Your task to perform on an android device: Open Reddit.com Image 0: 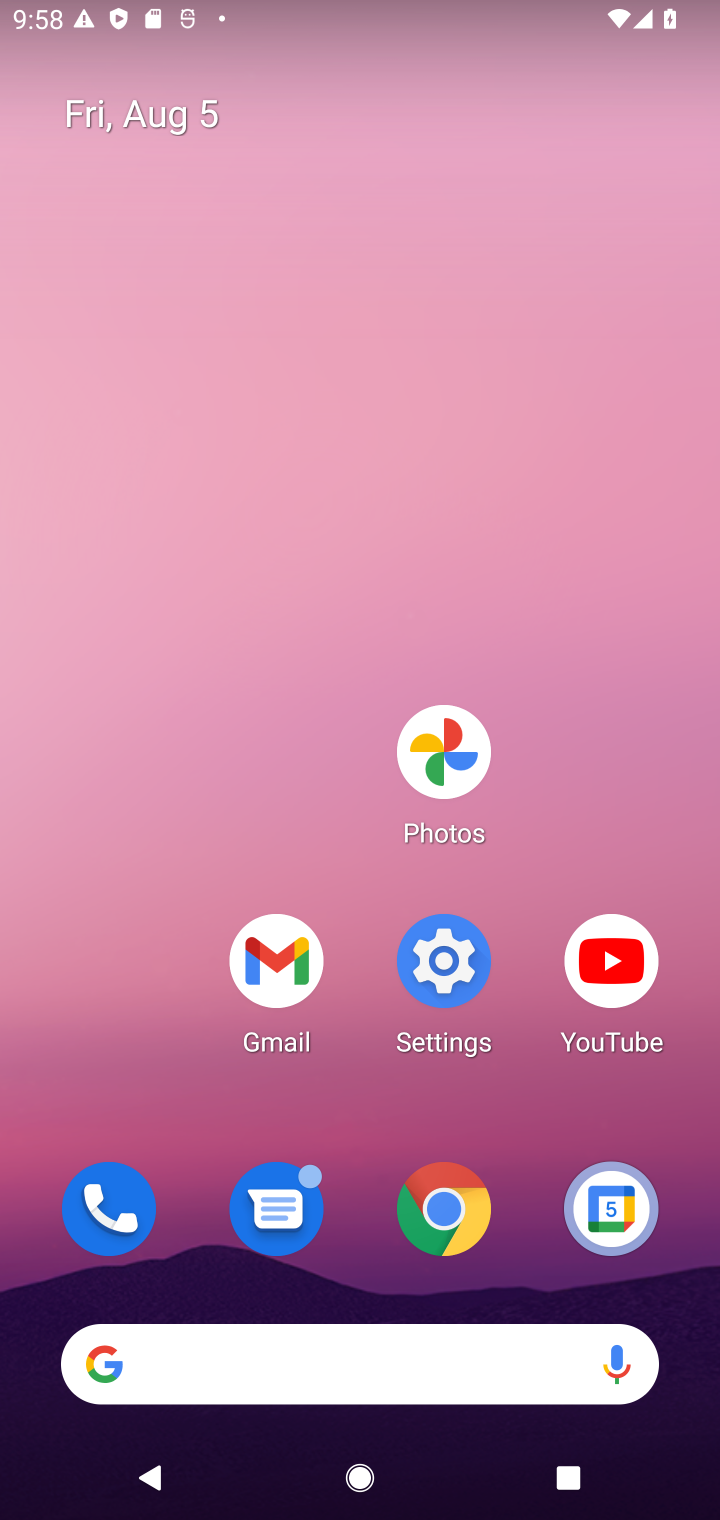
Step 0: drag from (465, 910) to (560, 328)
Your task to perform on an android device: Open Reddit.com Image 1: 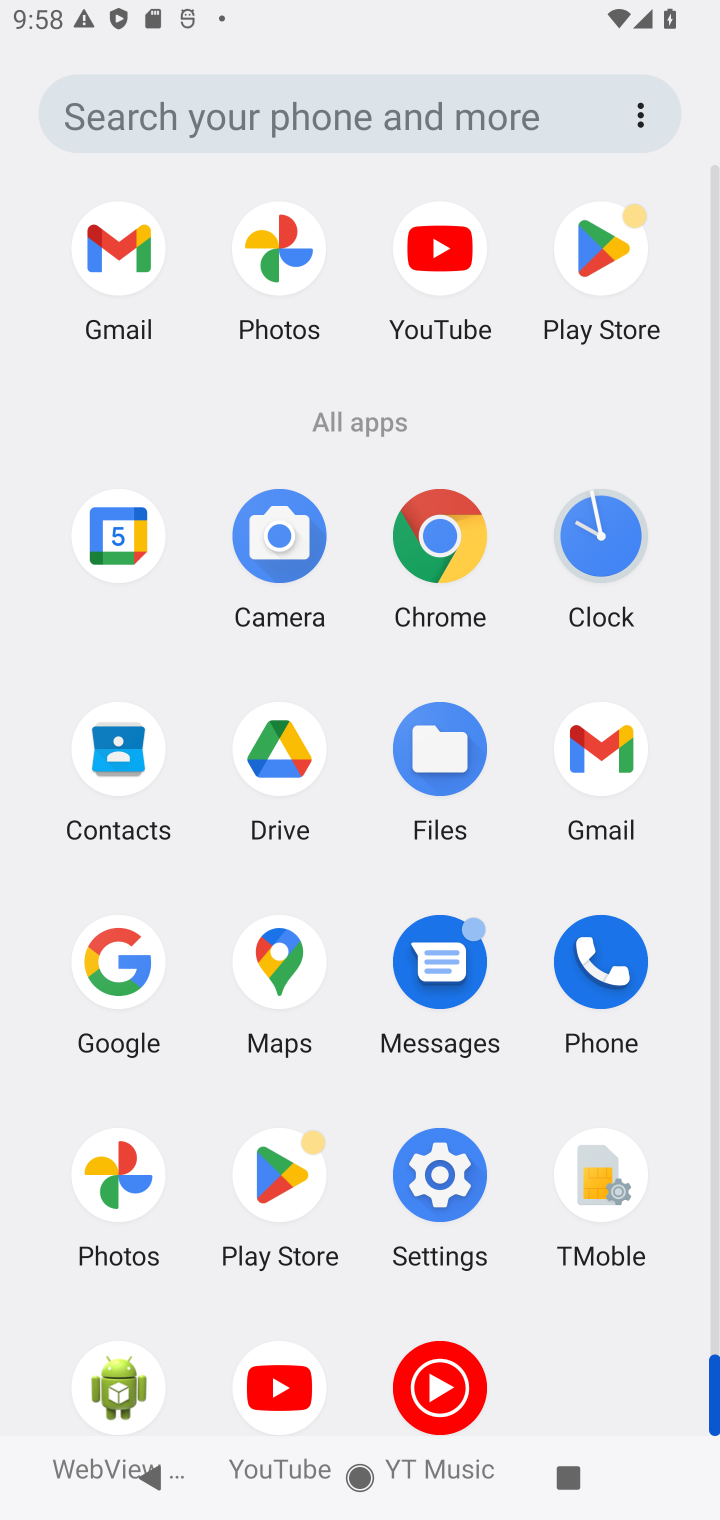
Step 1: drag from (336, 1223) to (386, 522)
Your task to perform on an android device: Open Reddit.com Image 2: 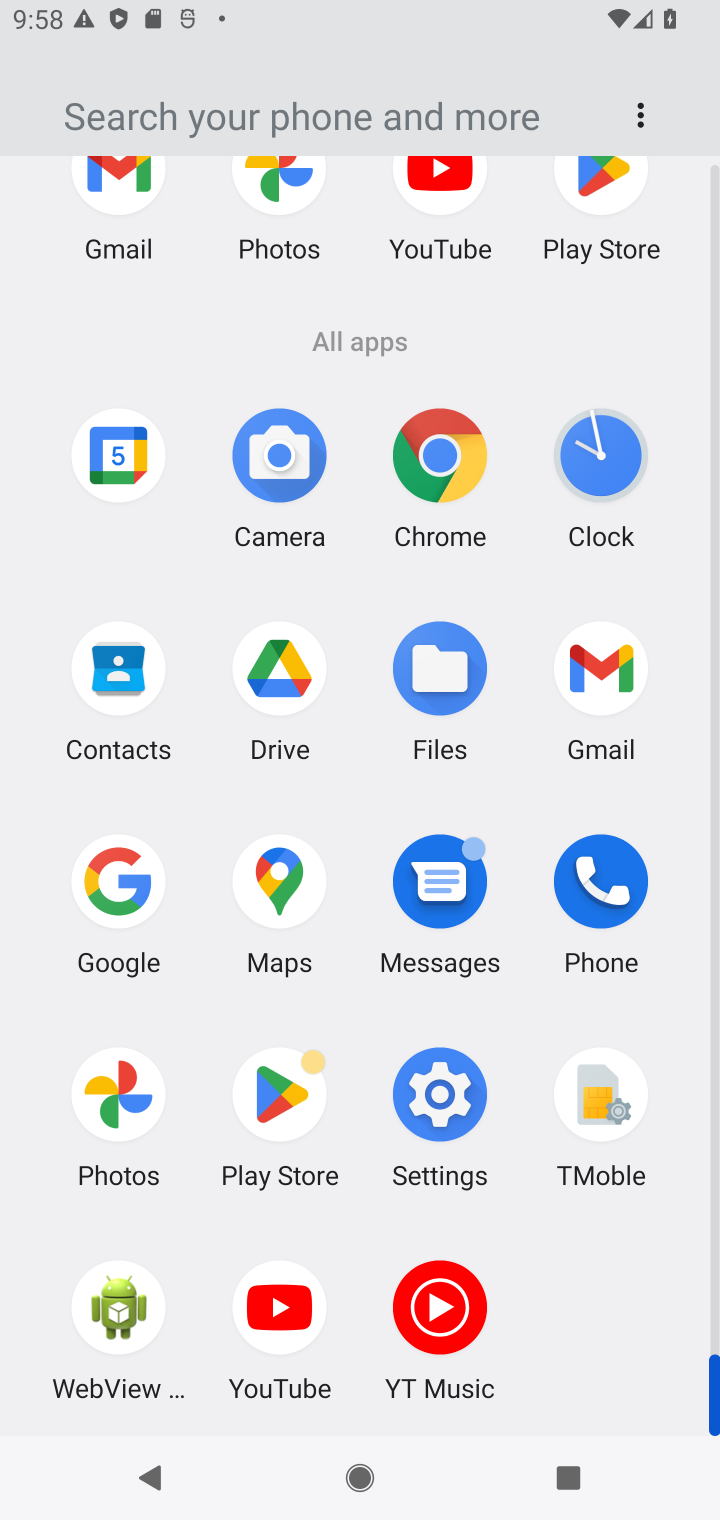
Step 2: click (443, 450)
Your task to perform on an android device: Open Reddit.com Image 3: 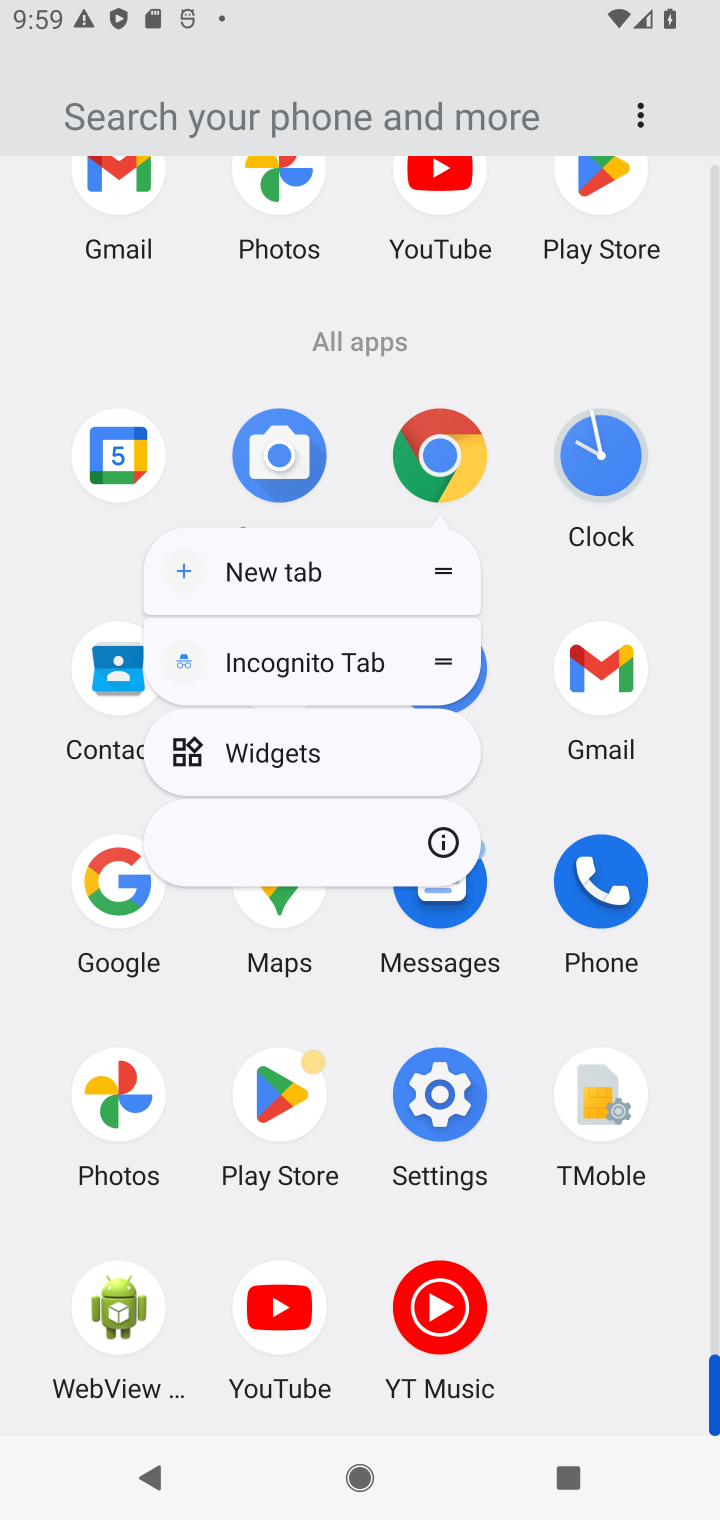
Step 3: click (426, 851)
Your task to perform on an android device: Open Reddit.com Image 4: 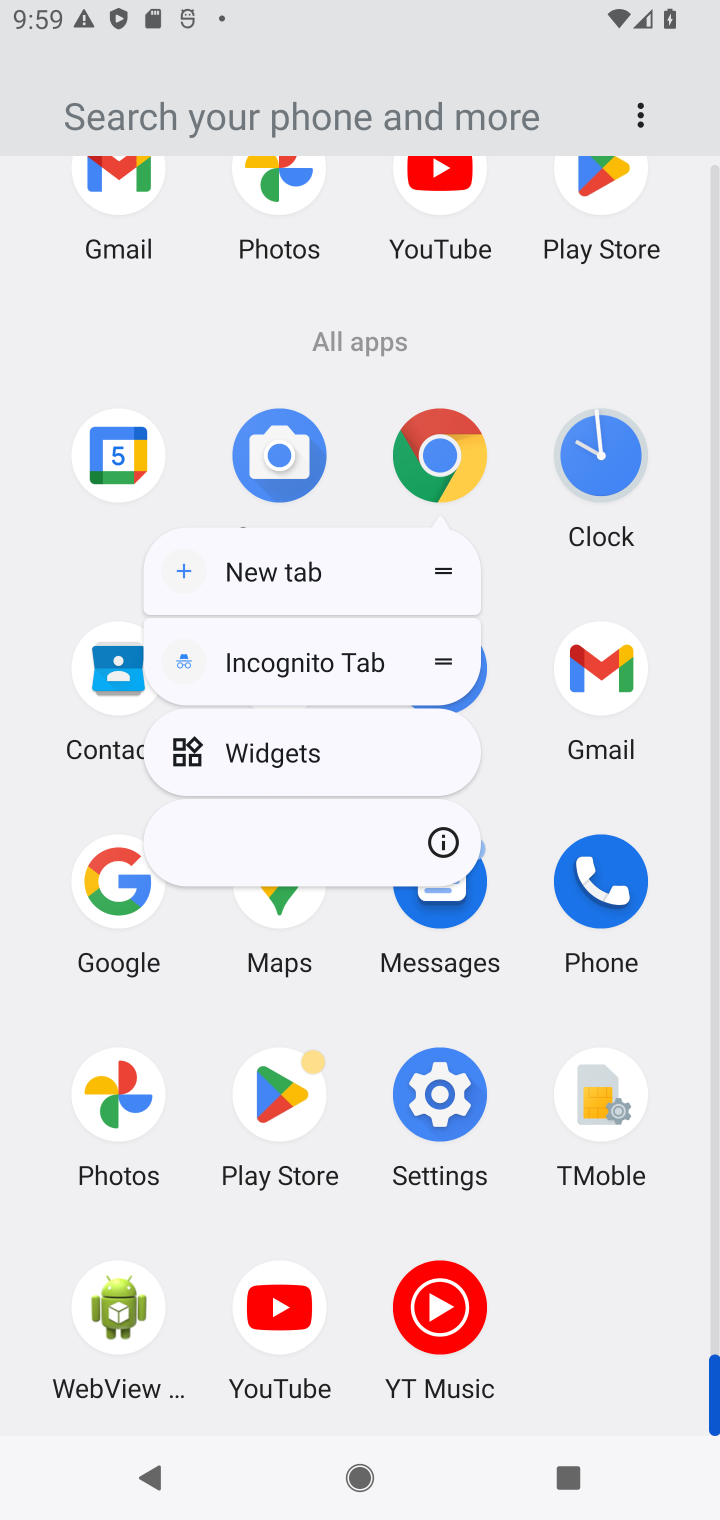
Step 4: click (426, 843)
Your task to perform on an android device: Open Reddit.com Image 5: 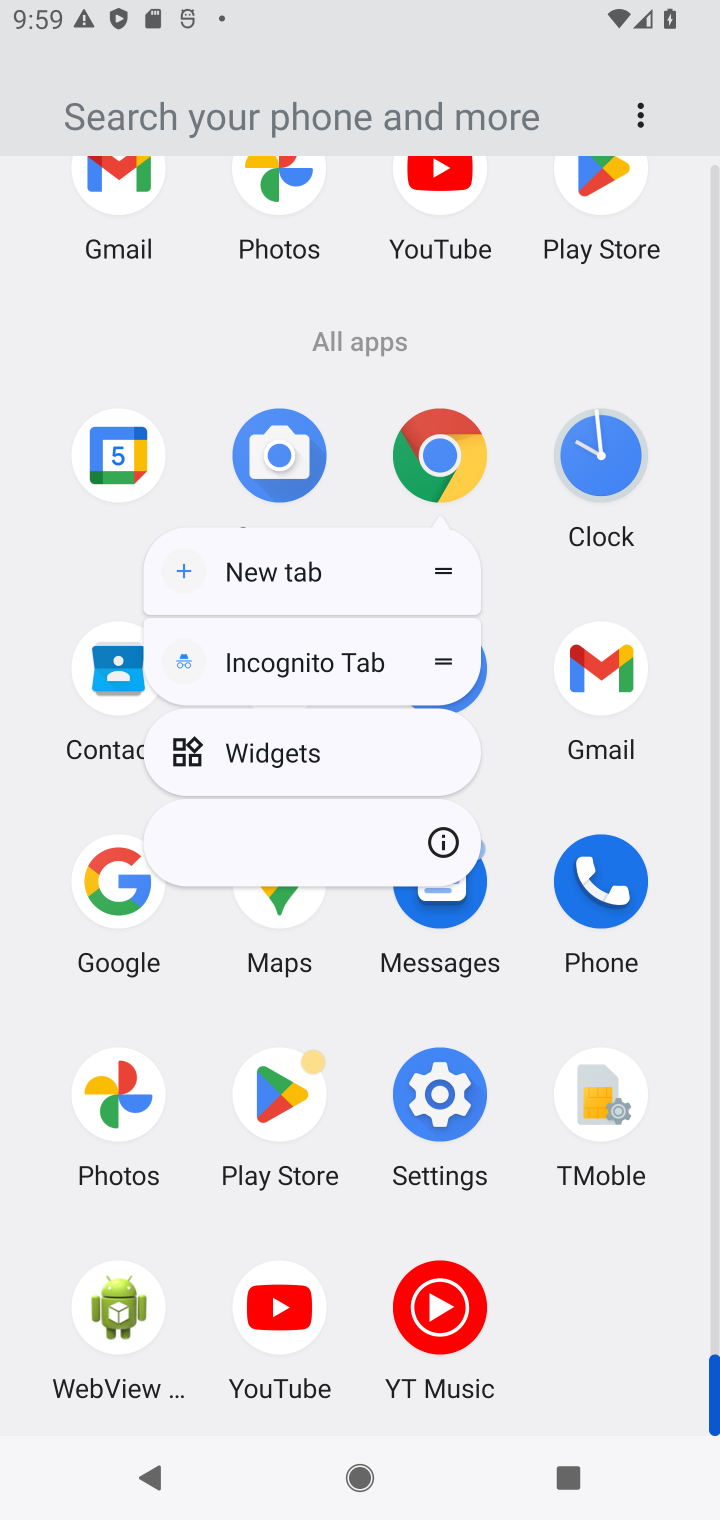
Step 5: click (431, 844)
Your task to perform on an android device: Open Reddit.com Image 6: 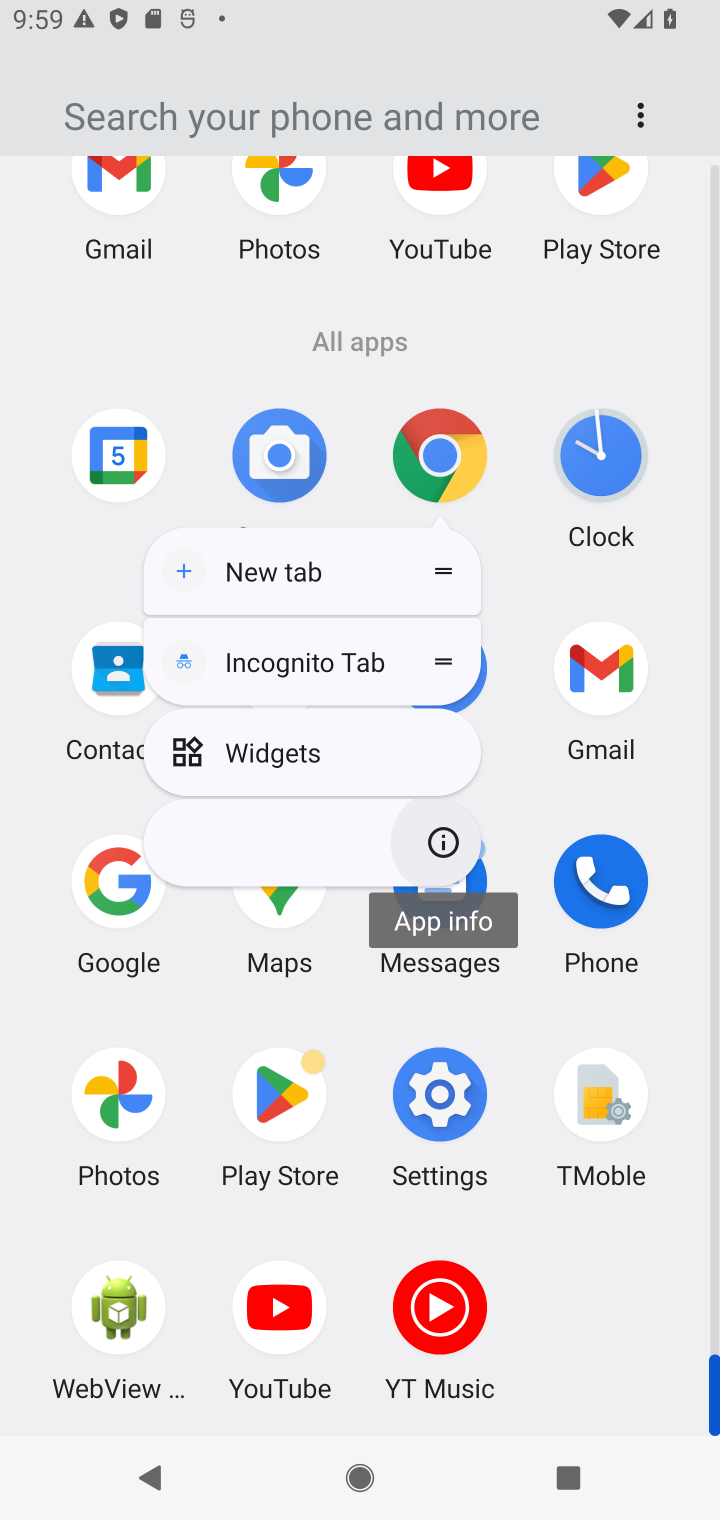
Step 6: click (435, 844)
Your task to perform on an android device: Open Reddit.com Image 7: 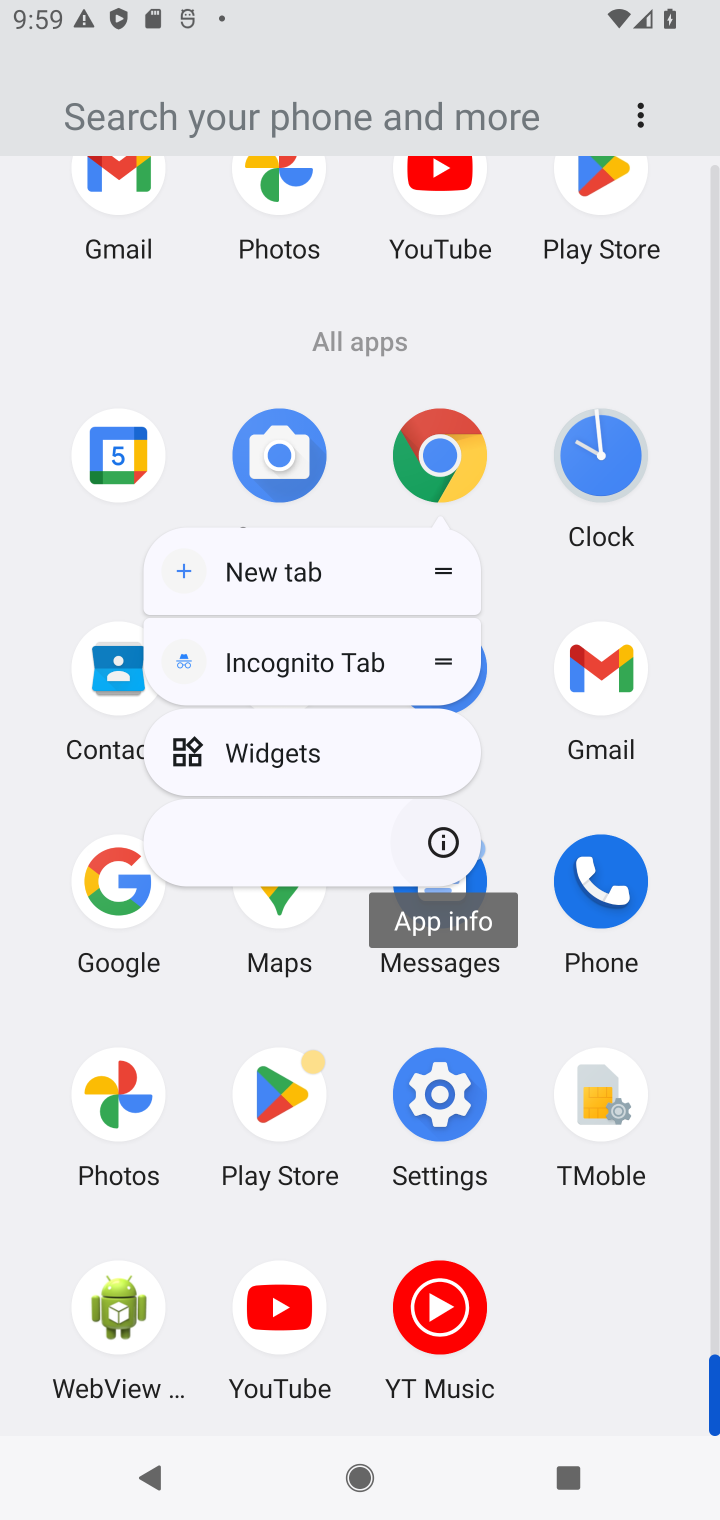
Step 7: click (435, 844)
Your task to perform on an android device: Open Reddit.com Image 8: 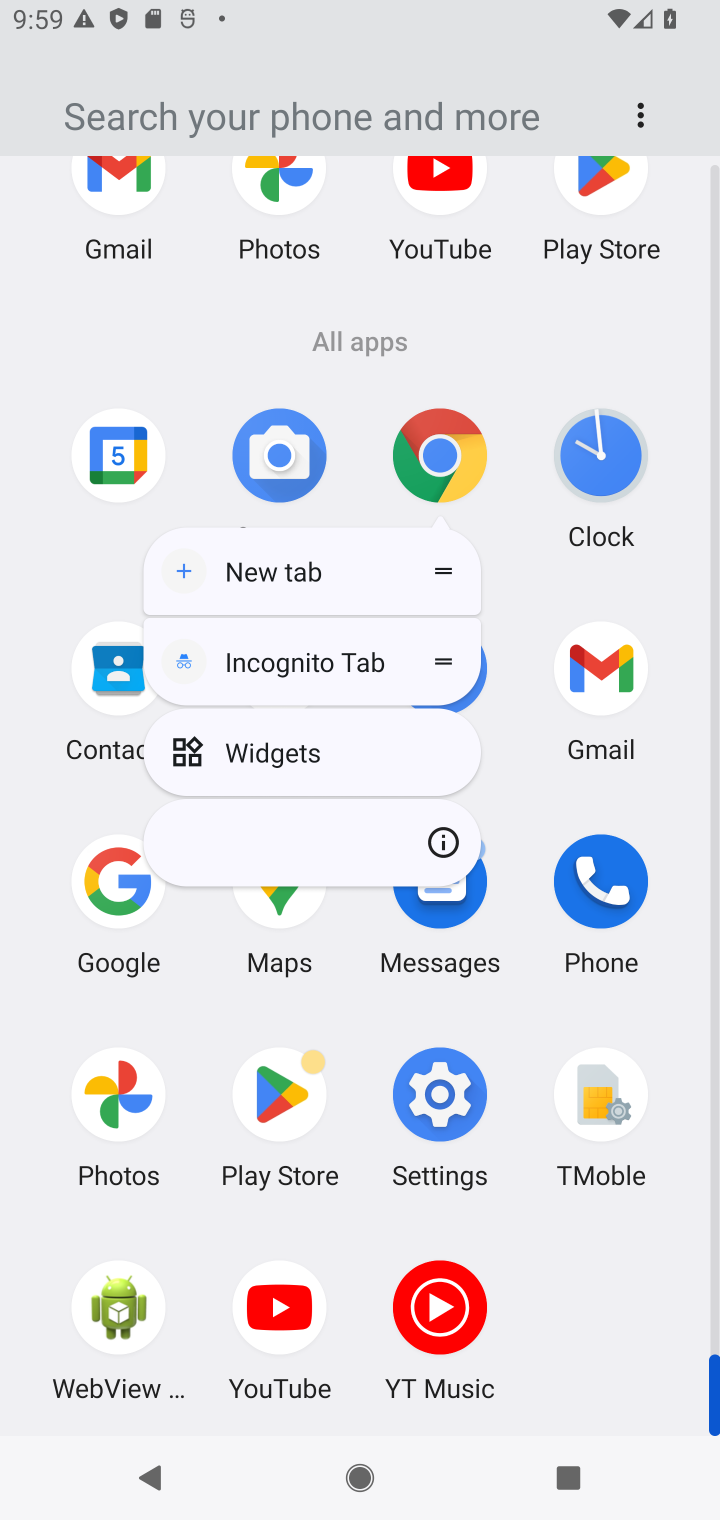
Step 8: click (429, 438)
Your task to perform on an android device: Open Reddit.com Image 9: 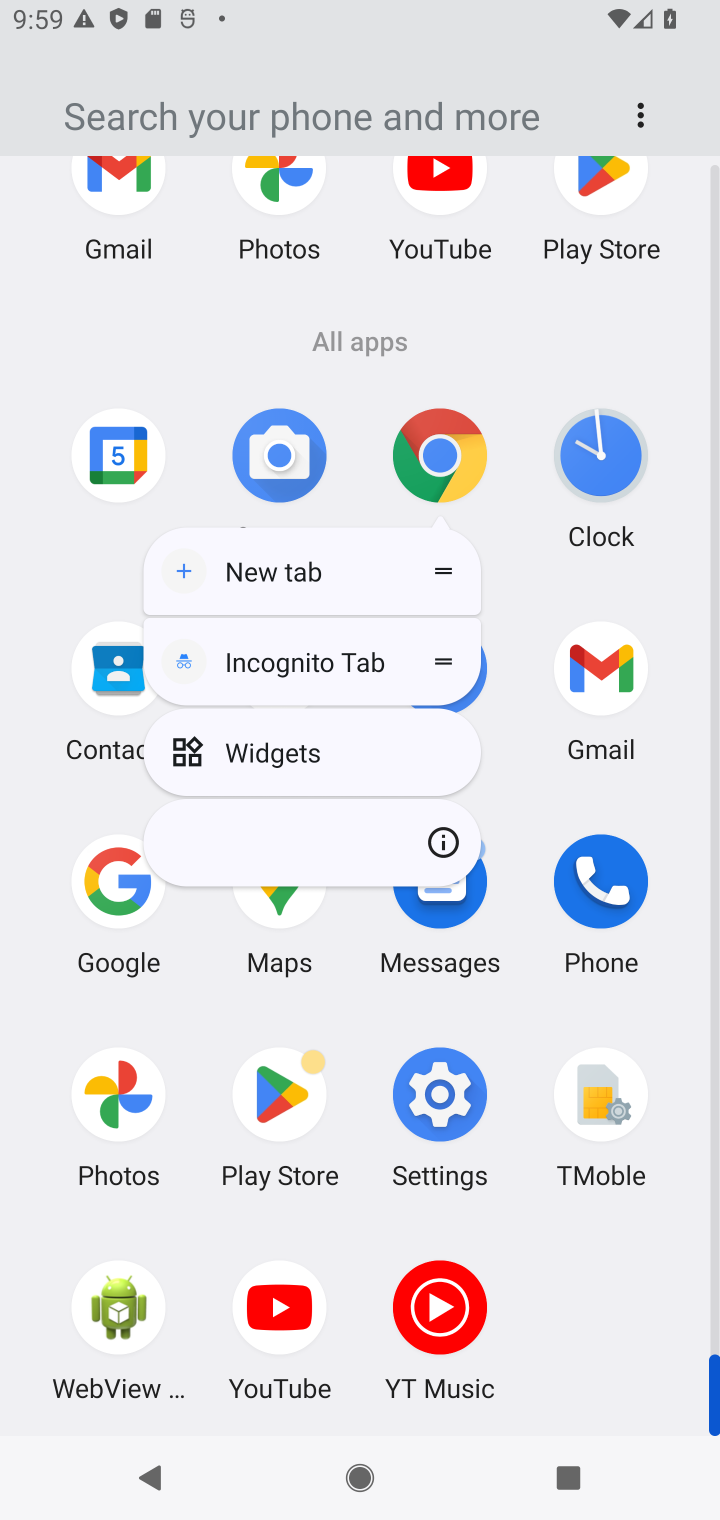
Step 9: click (431, 438)
Your task to perform on an android device: Open Reddit.com Image 10: 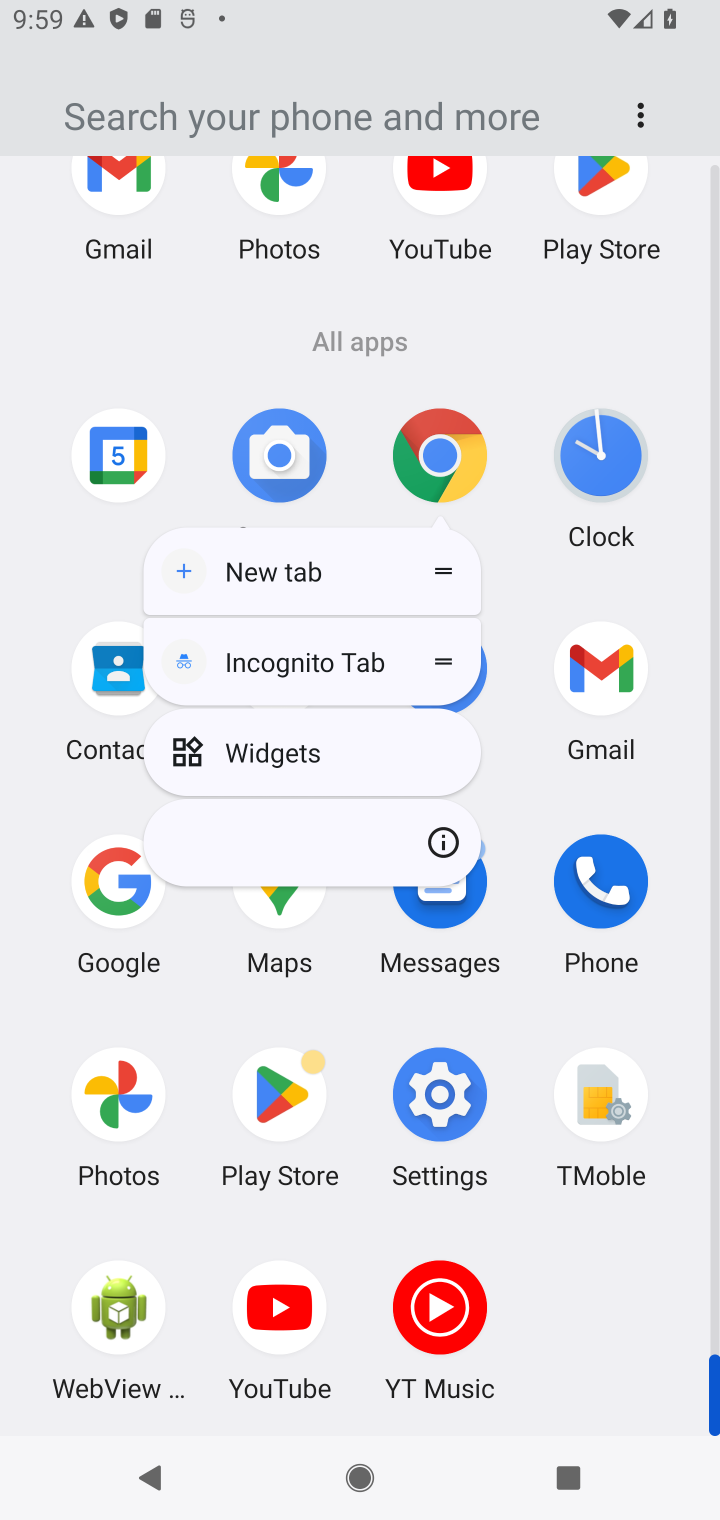
Step 10: click (438, 462)
Your task to perform on an android device: Open Reddit.com Image 11: 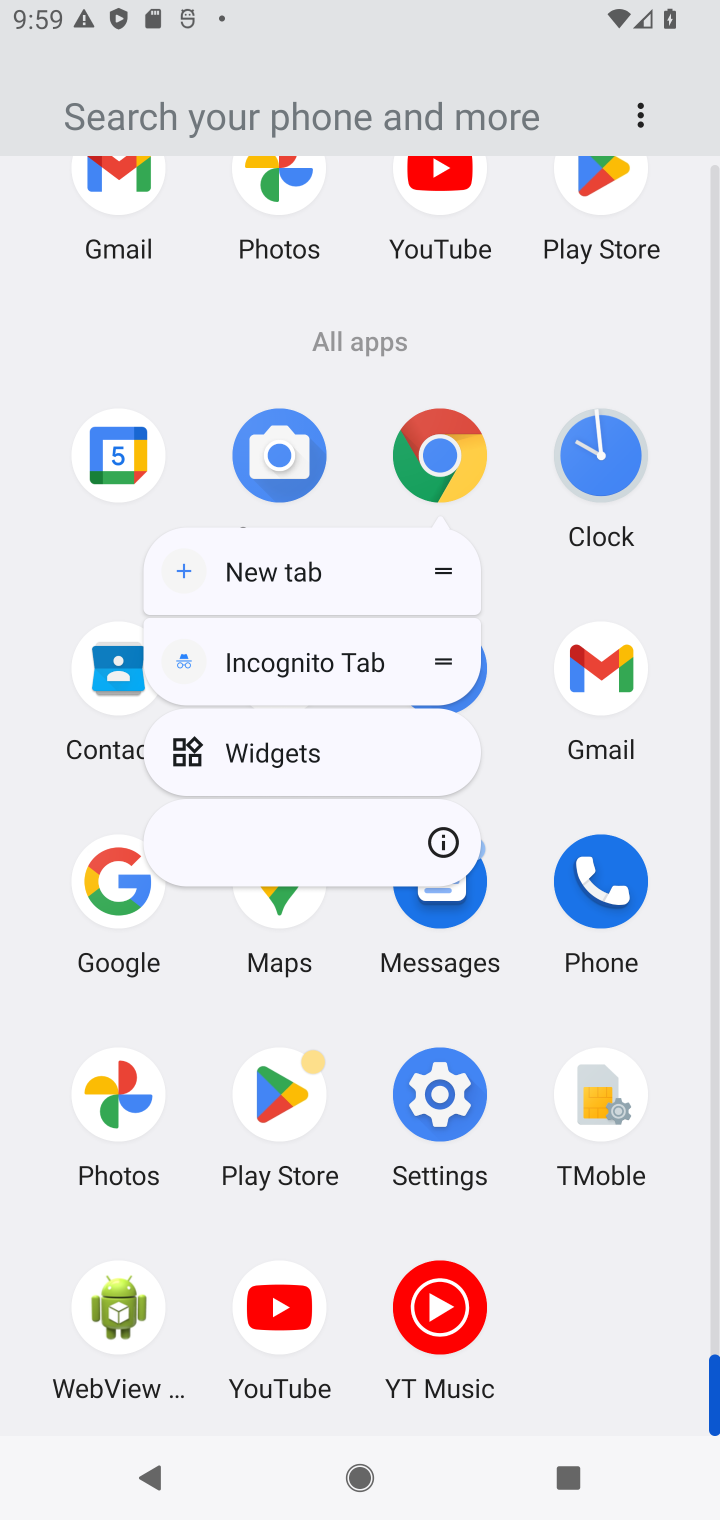
Step 11: click (438, 462)
Your task to perform on an android device: Open Reddit.com Image 12: 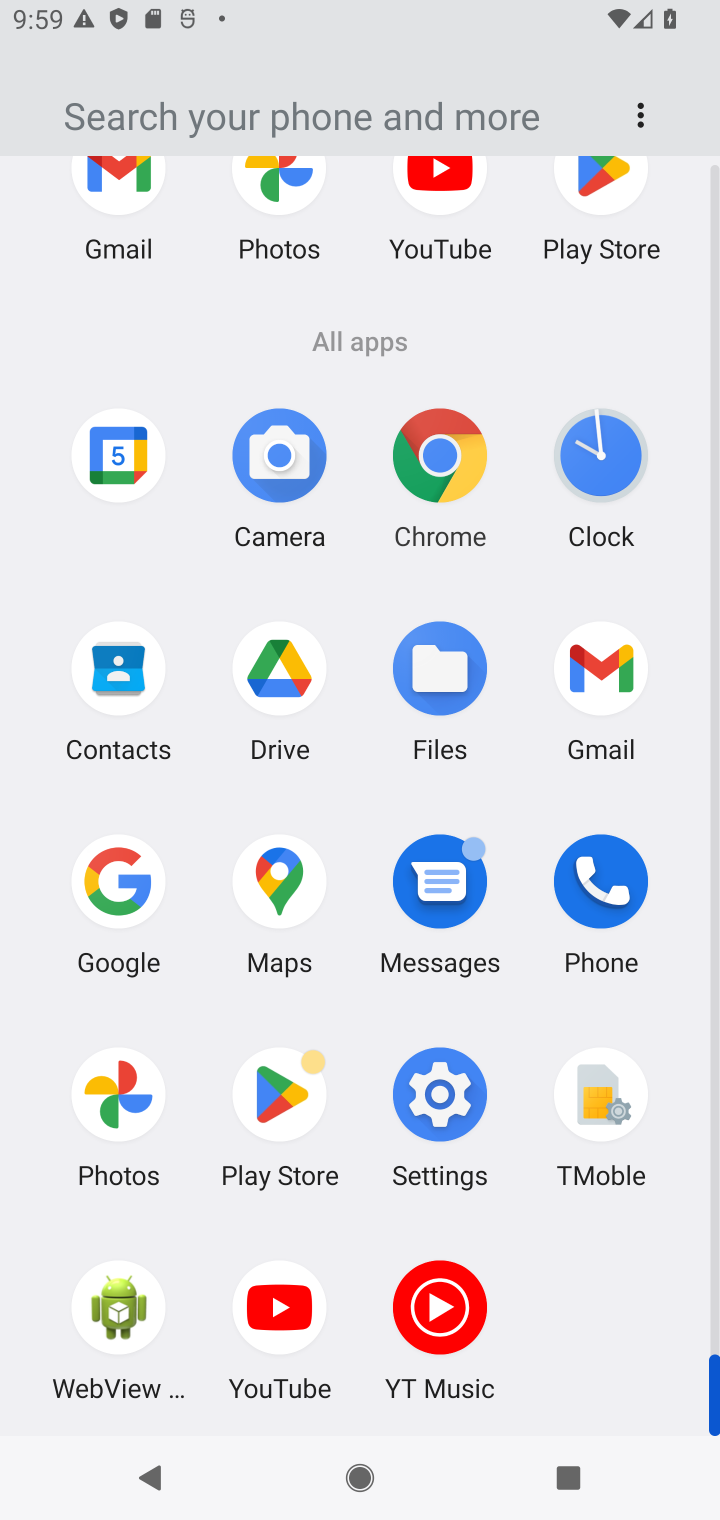
Step 12: click (438, 462)
Your task to perform on an android device: Open Reddit.com Image 13: 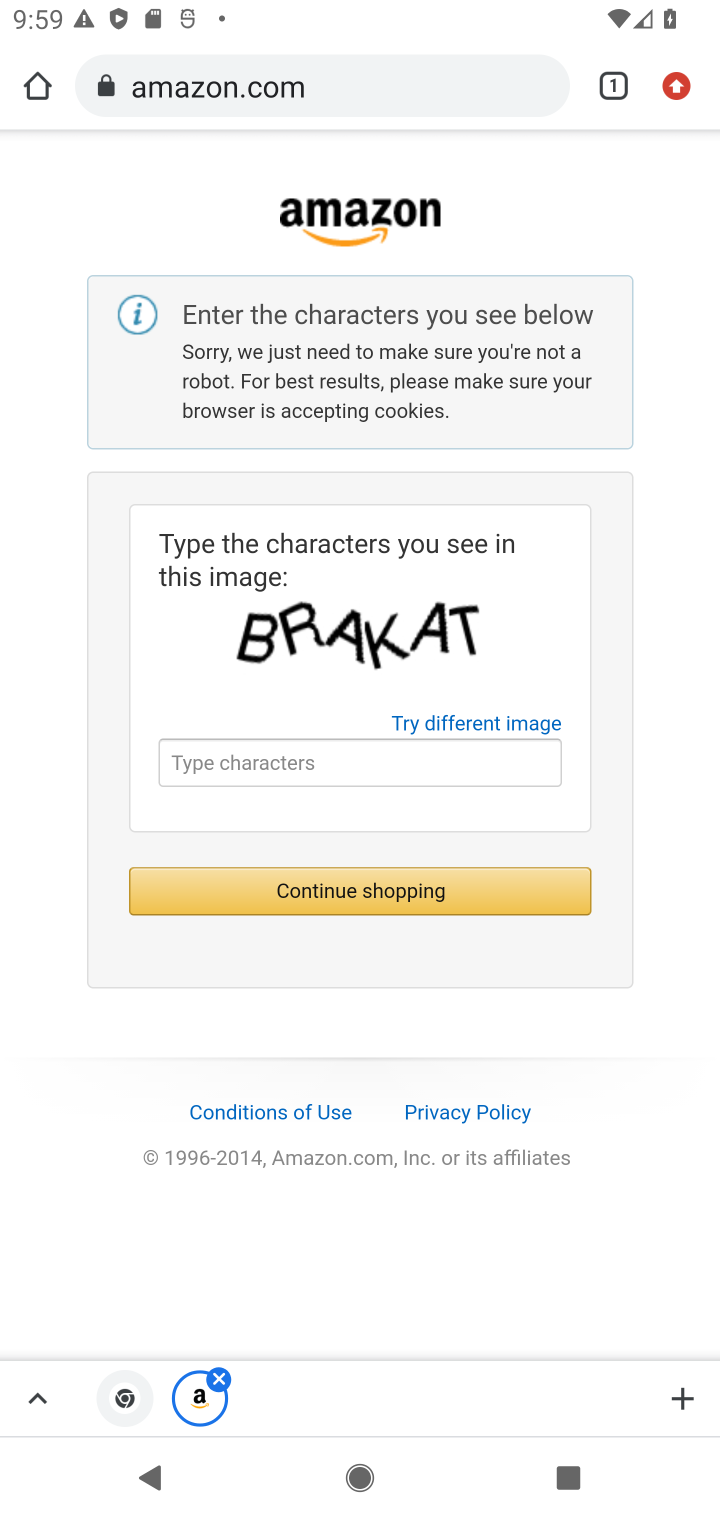
Step 13: click (281, 85)
Your task to perform on an android device: Open Reddit.com Image 14: 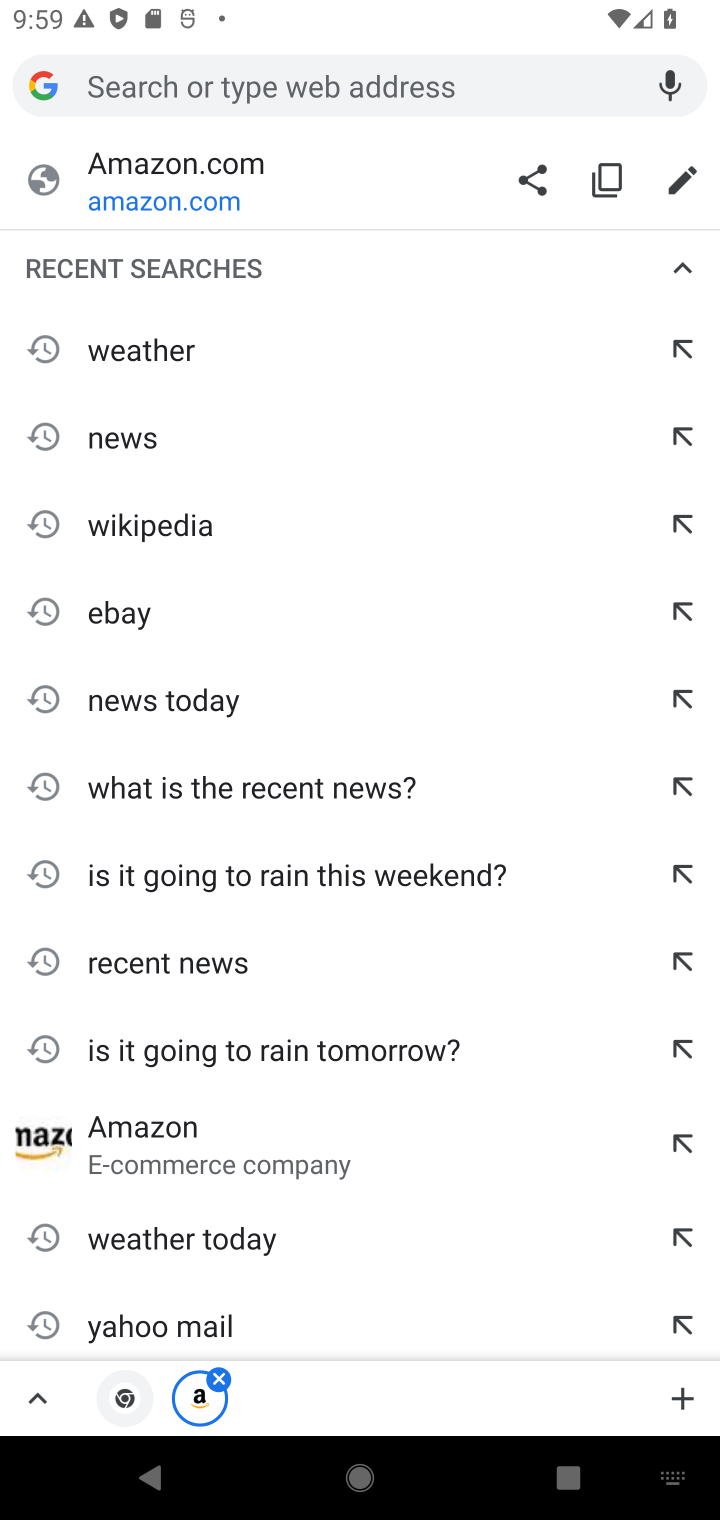
Step 14: type "Reddit.com"
Your task to perform on an android device: Open Reddit.com Image 15: 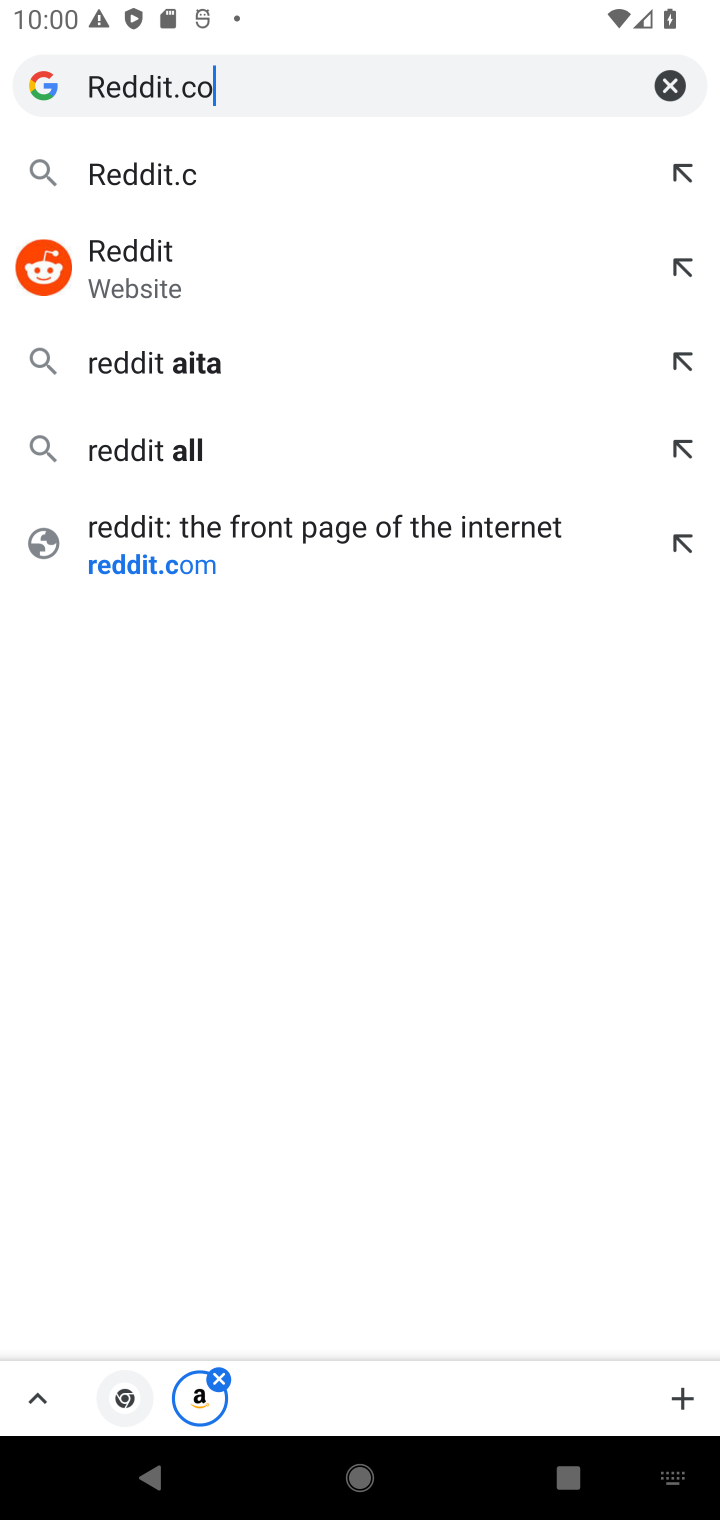
Step 15: type ""
Your task to perform on an android device: Open Reddit.com Image 16: 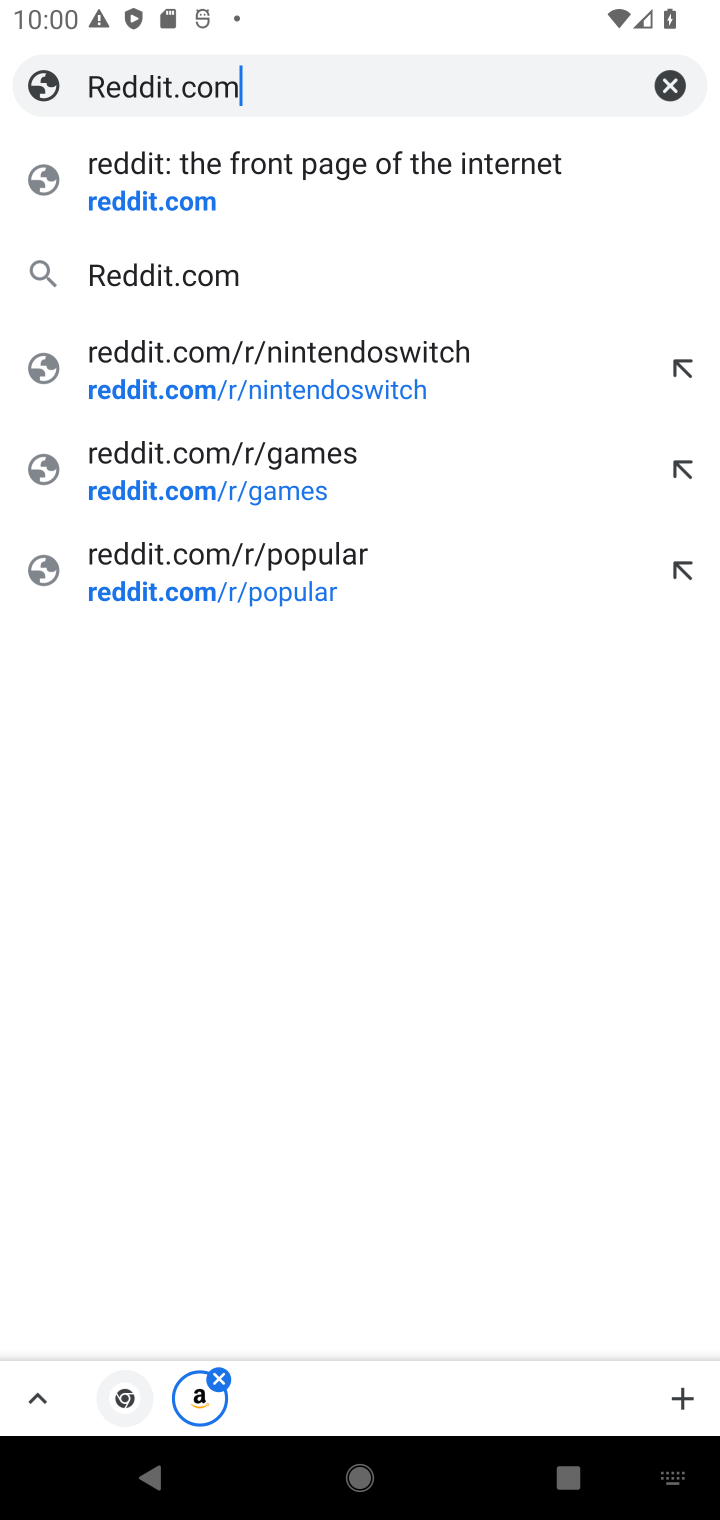
Step 16: click (170, 173)
Your task to perform on an android device: Open Reddit.com Image 17: 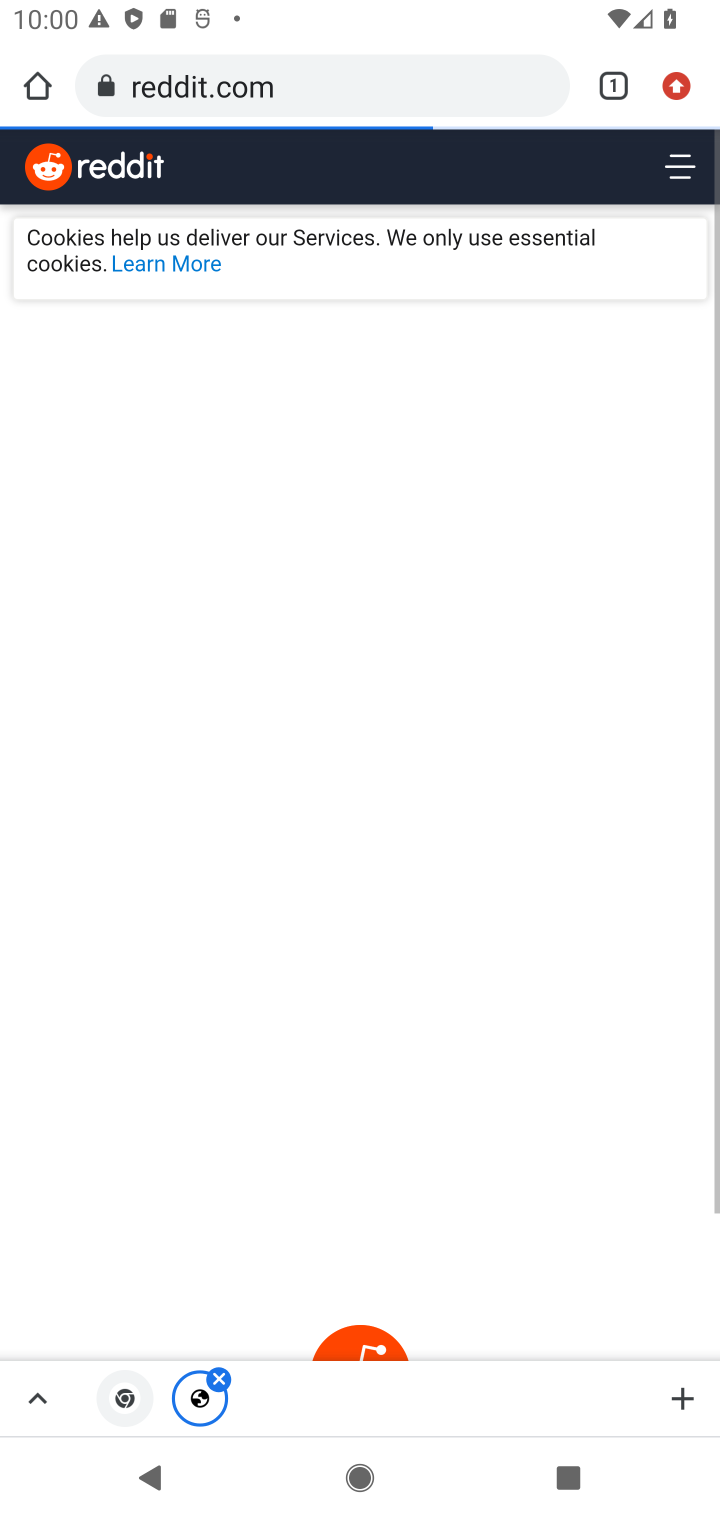
Step 17: task complete